Your task to perform on an android device: turn notification dots on Image 0: 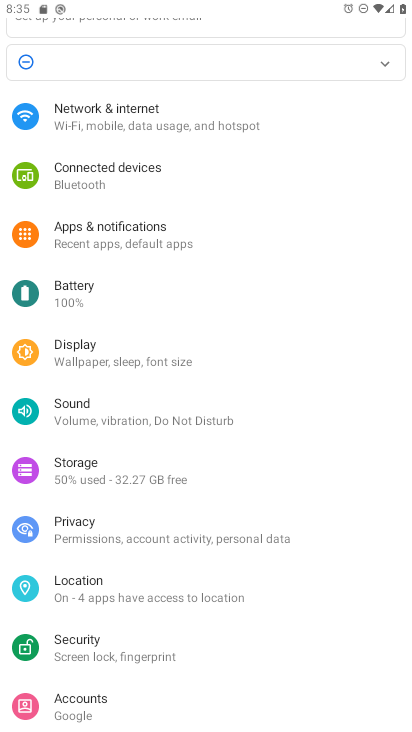
Step 0: click (102, 227)
Your task to perform on an android device: turn notification dots on Image 1: 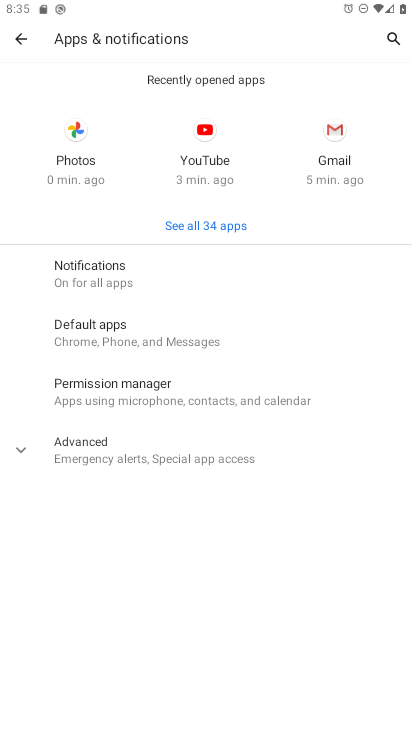
Step 1: click (96, 262)
Your task to perform on an android device: turn notification dots on Image 2: 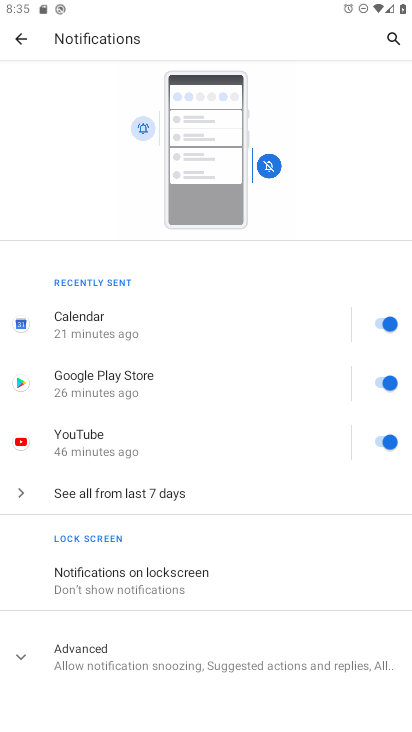
Step 2: drag from (174, 615) to (118, 408)
Your task to perform on an android device: turn notification dots on Image 3: 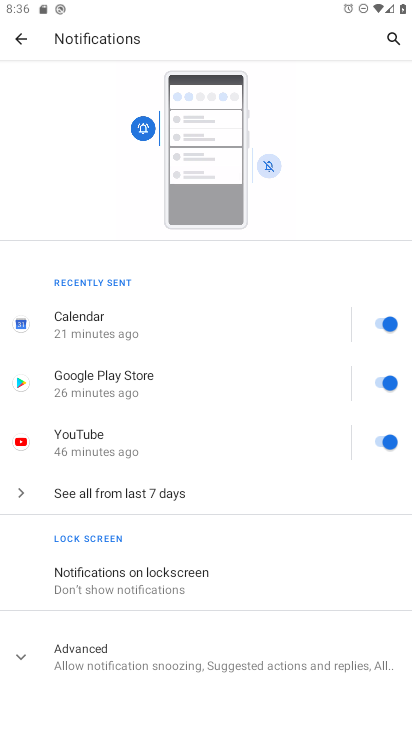
Step 3: click (31, 658)
Your task to perform on an android device: turn notification dots on Image 4: 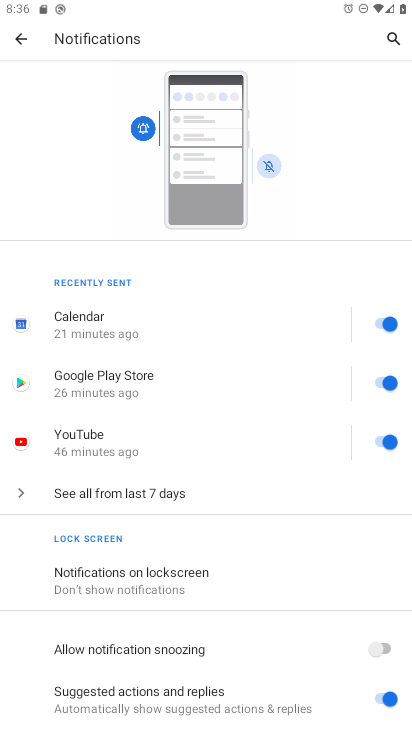
Step 4: task complete